Your task to perform on an android device: open app "Pinterest" Image 0: 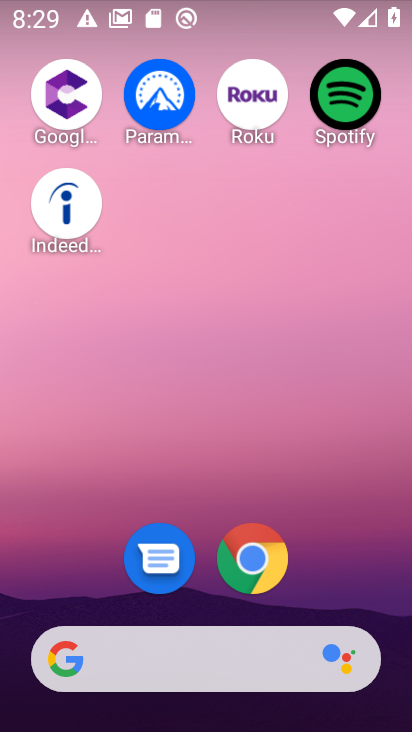
Step 0: drag from (168, 643) to (151, 60)
Your task to perform on an android device: open app "Pinterest" Image 1: 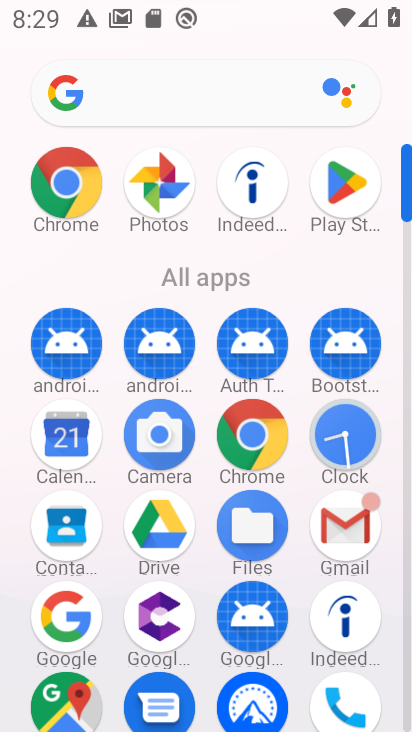
Step 1: click (355, 187)
Your task to perform on an android device: open app "Pinterest" Image 2: 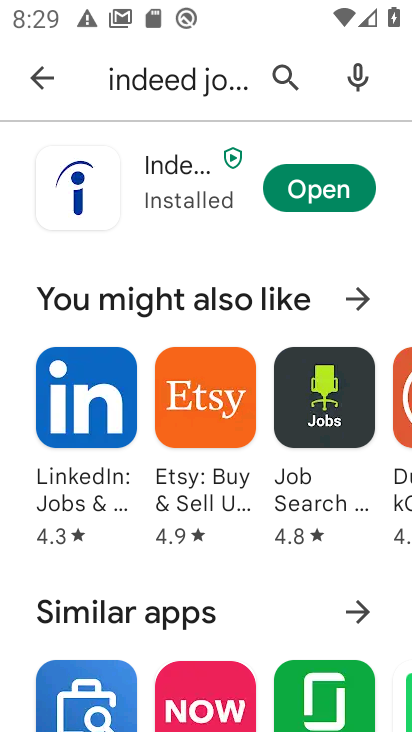
Step 2: click (287, 84)
Your task to perform on an android device: open app "Pinterest" Image 3: 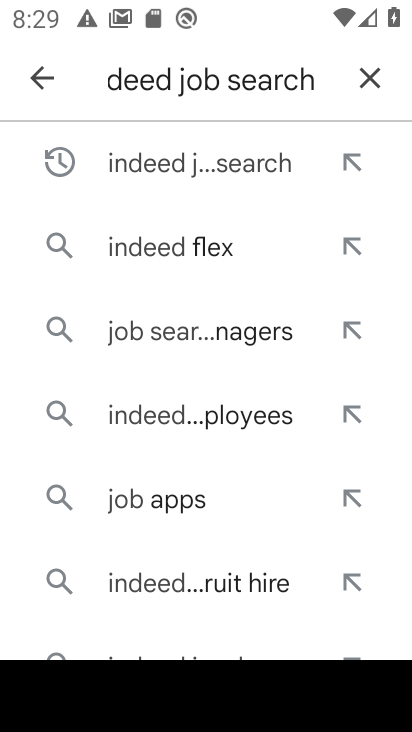
Step 3: click (373, 87)
Your task to perform on an android device: open app "Pinterest" Image 4: 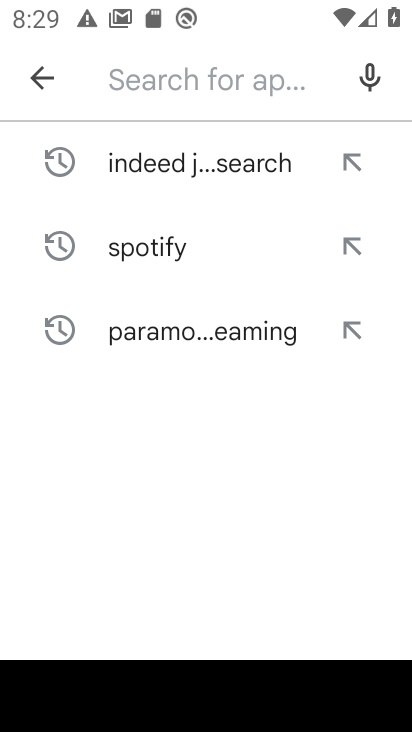
Step 4: type "pinteresr"
Your task to perform on an android device: open app "Pinterest" Image 5: 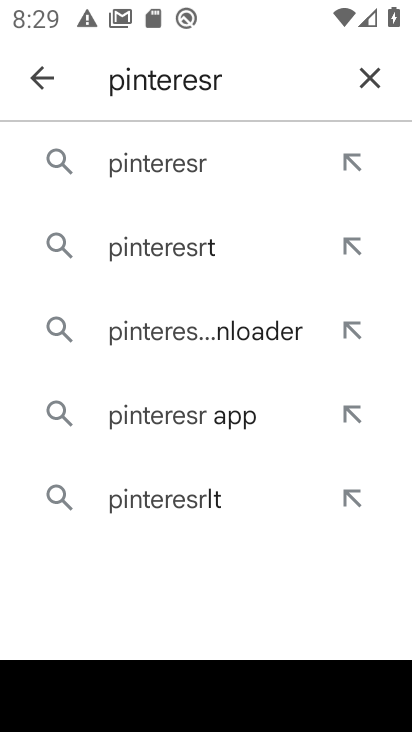
Step 5: click (214, 253)
Your task to perform on an android device: open app "Pinterest" Image 6: 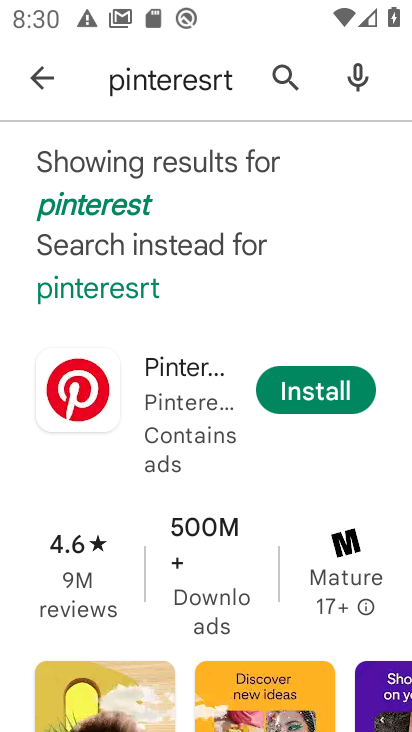
Step 6: task complete